Your task to perform on an android device: How do I get to the nearest Verizon Store? Image 0: 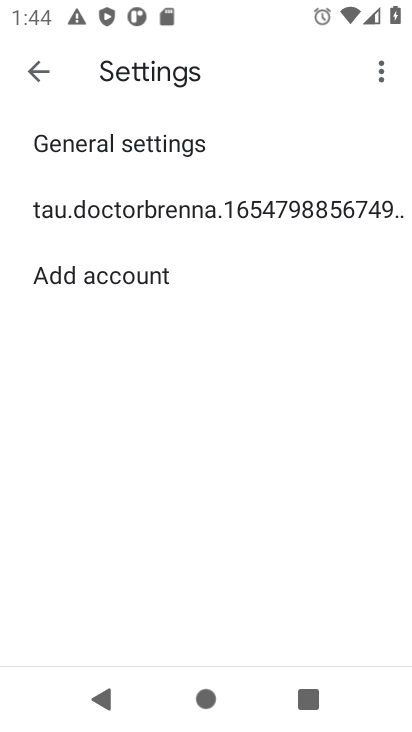
Step 0: press home button
Your task to perform on an android device: How do I get to the nearest Verizon Store? Image 1: 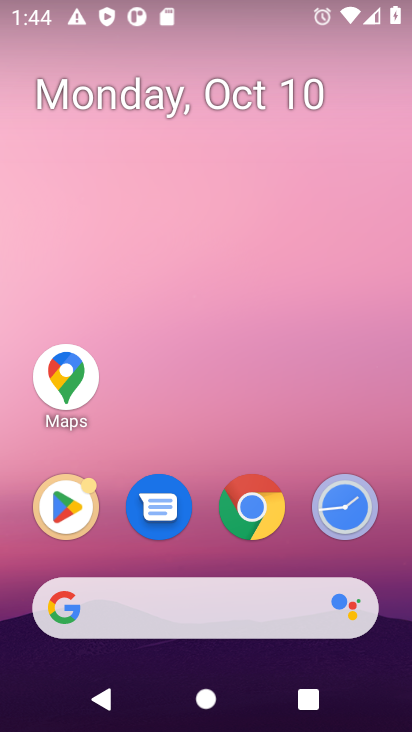
Step 1: click (252, 614)
Your task to perform on an android device: How do I get to the nearest Verizon Store? Image 2: 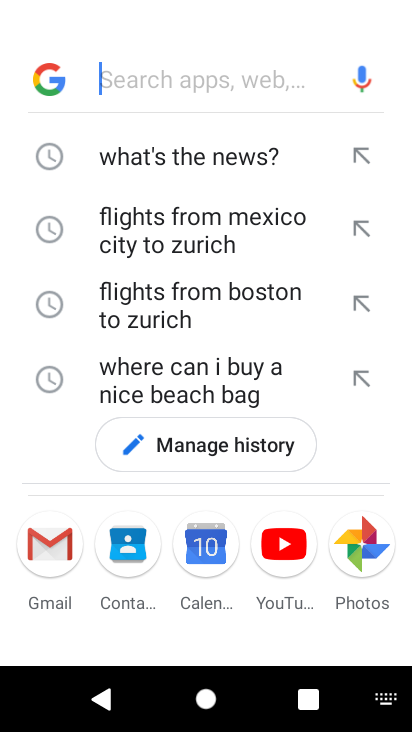
Step 2: type "How do I get to the nearest Verizon Store"
Your task to perform on an android device: How do I get to the nearest Verizon Store? Image 3: 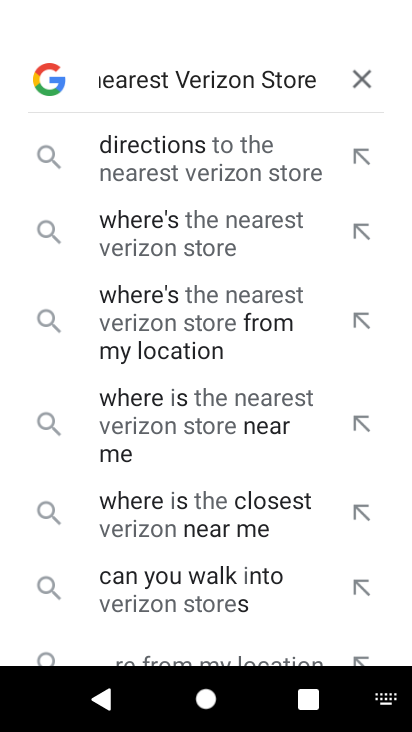
Step 3: press enter
Your task to perform on an android device: How do I get to the nearest Verizon Store? Image 4: 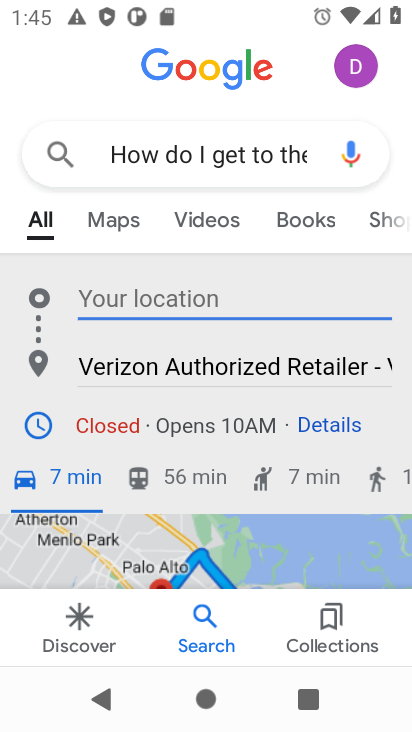
Step 4: task complete